Your task to perform on an android device: install app "Pluto TV - Live TV and Movies" Image 0: 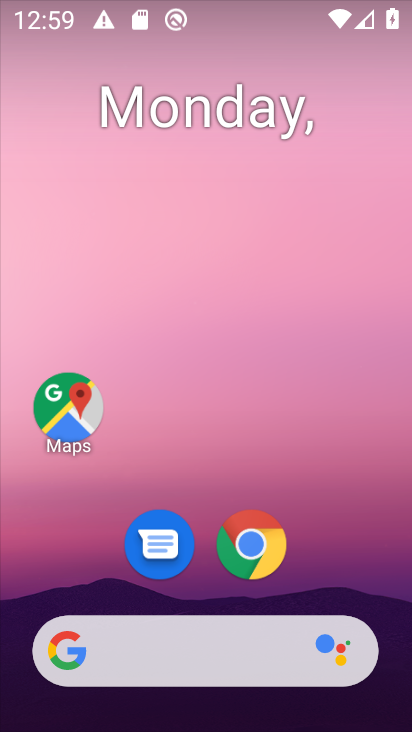
Step 0: drag from (318, 377) to (271, 49)
Your task to perform on an android device: install app "Pluto TV - Live TV and Movies" Image 1: 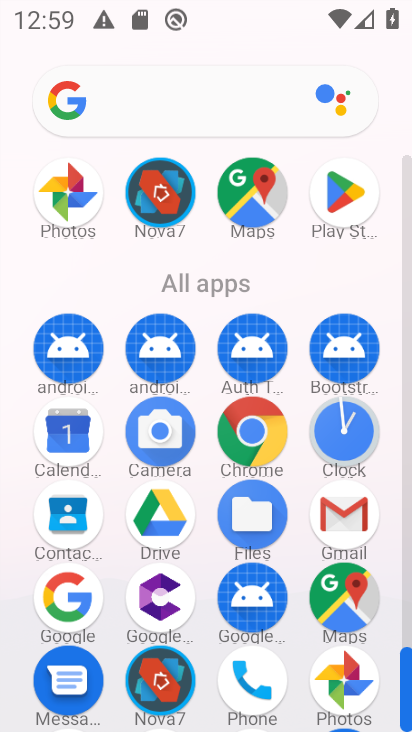
Step 1: click (337, 181)
Your task to perform on an android device: install app "Pluto TV - Live TV and Movies" Image 2: 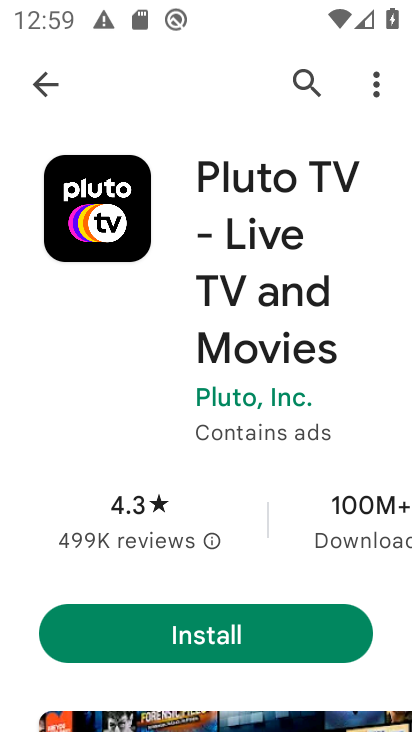
Step 2: click (187, 613)
Your task to perform on an android device: install app "Pluto TV - Live TV and Movies" Image 3: 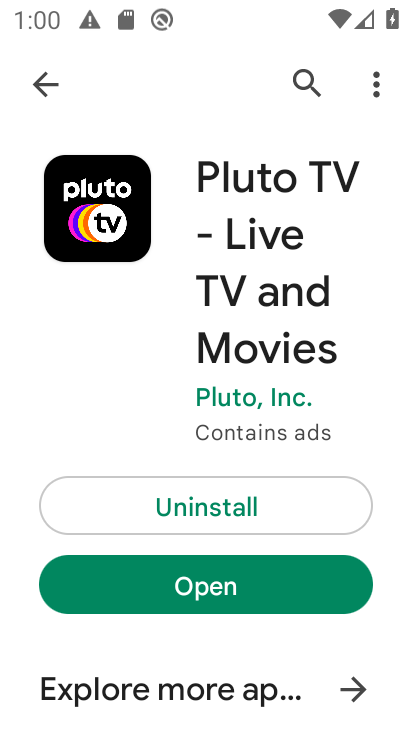
Step 3: task complete